Your task to perform on an android device: Clear all items from cart on bestbuy.com. Add "usb-c to usb-a" to the cart on bestbuy.com Image 0: 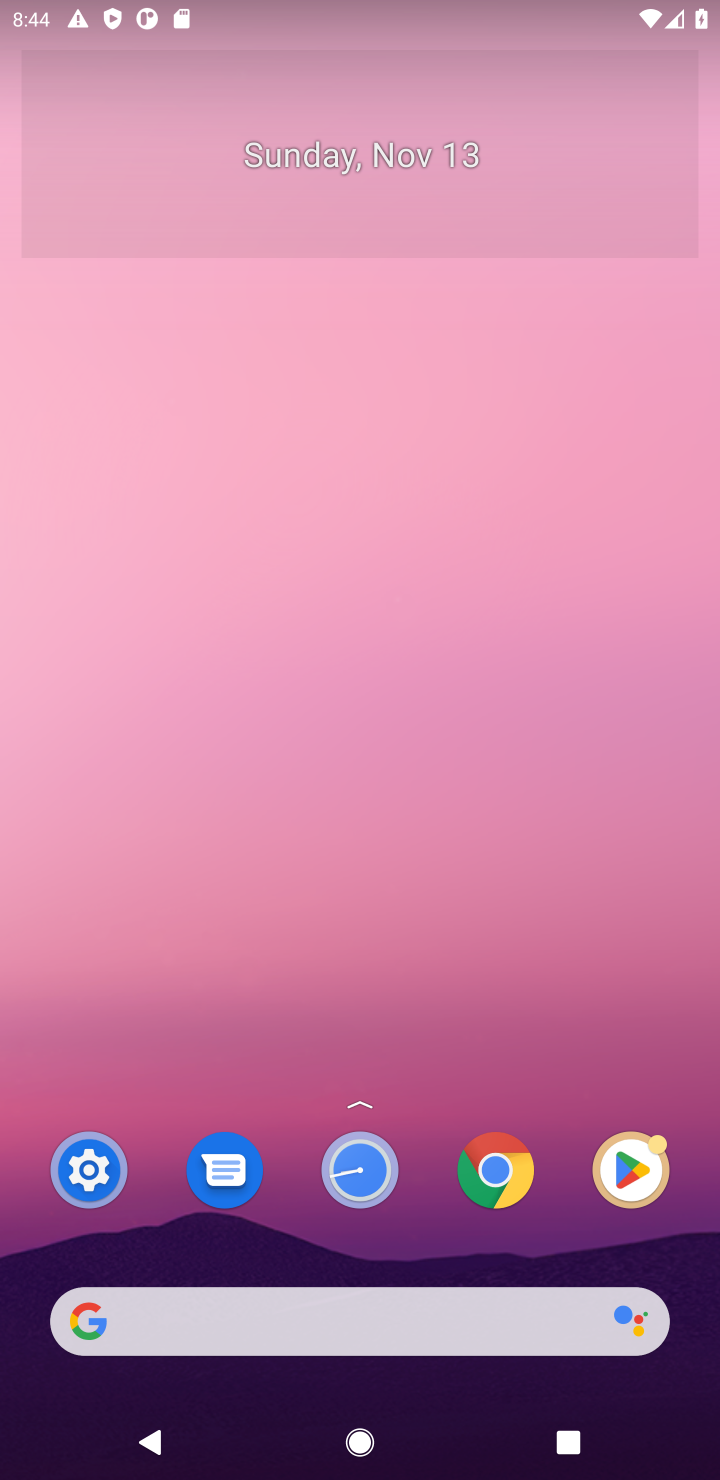
Step 0: click (405, 1302)
Your task to perform on an android device: Clear all items from cart on bestbuy.com. Add "usb-c to usb-a" to the cart on bestbuy.com Image 1: 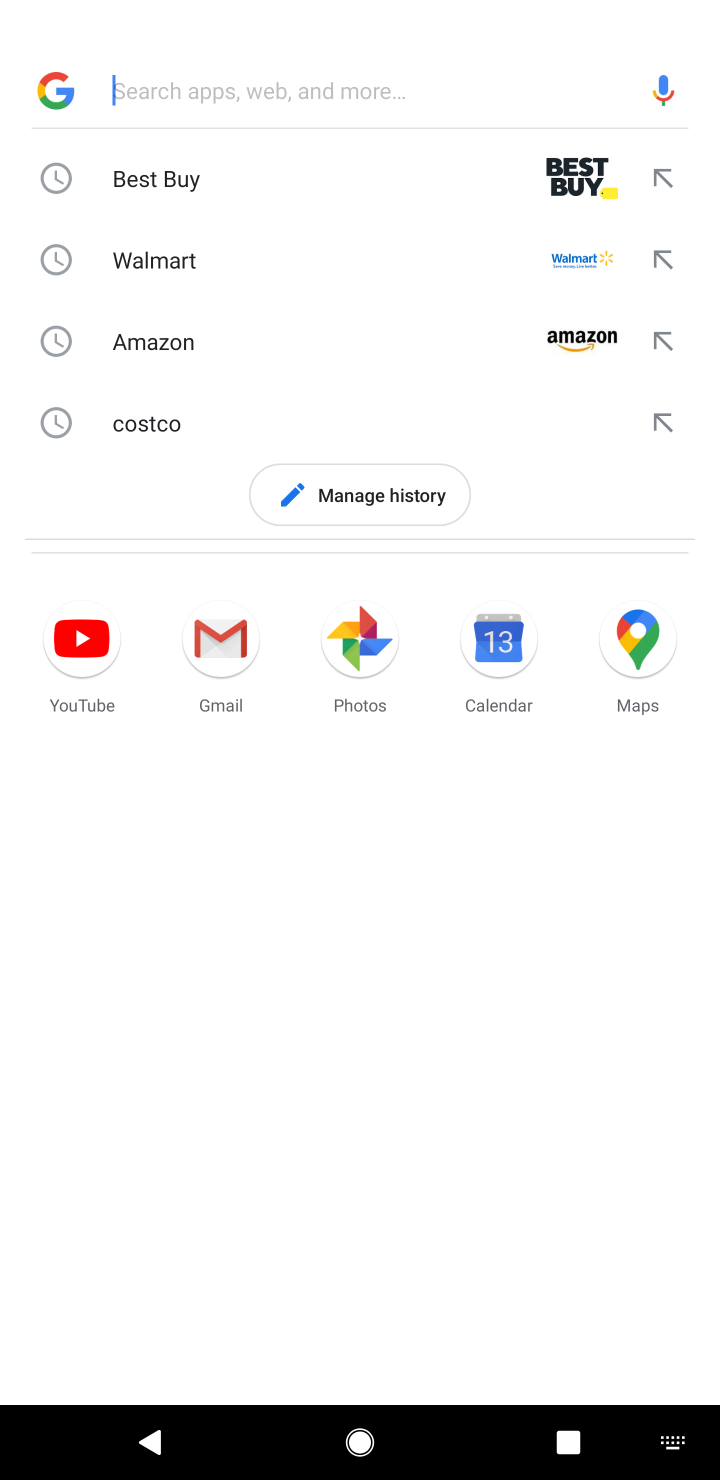
Step 1: type "bestbuy"
Your task to perform on an android device: Clear all items from cart on bestbuy.com. Add "usb-c to usb-a" to the cart on bestbuy.com Image 2: 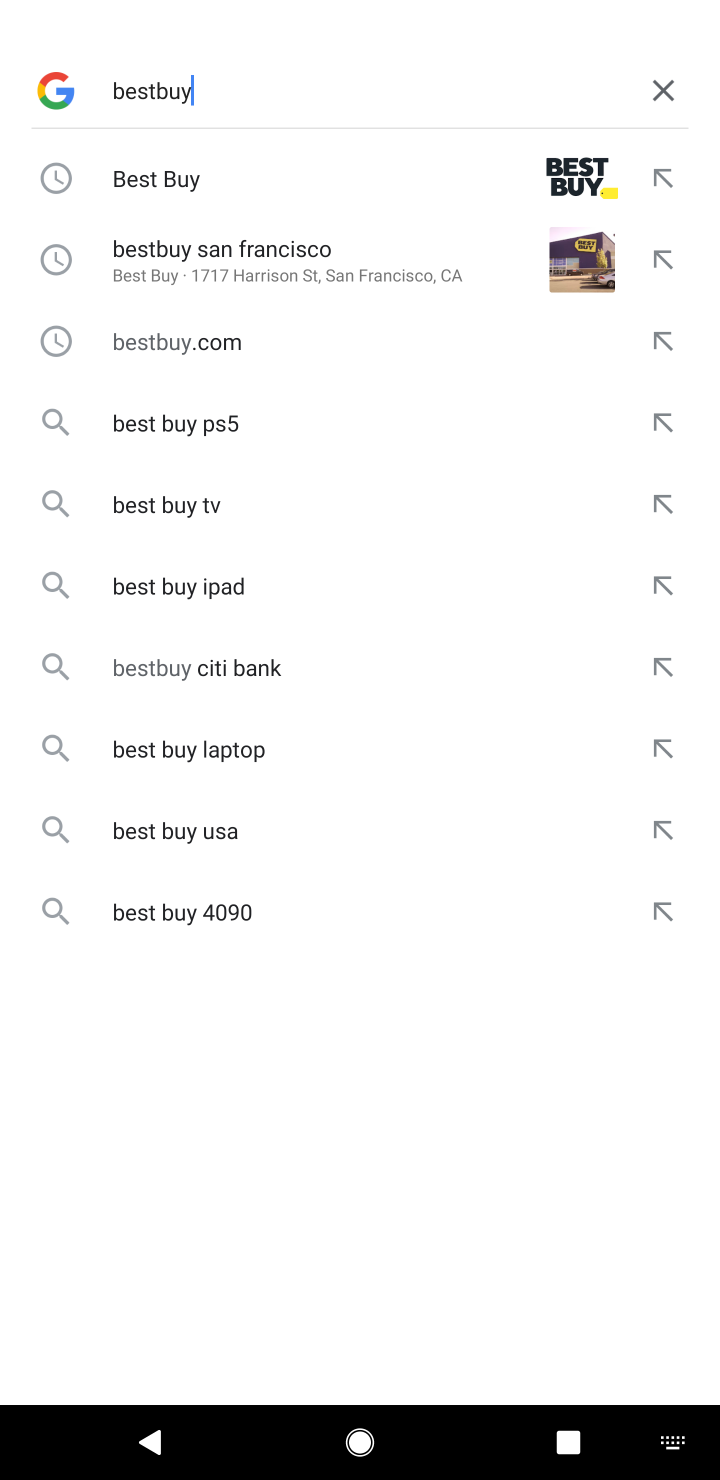
Step 2: click (245, 193)
Your task to perform on an android device: Clear all items from cart on bestbuy.com. Add "usb-c to usb-a" to the cart on bestbuy.com Image 3: 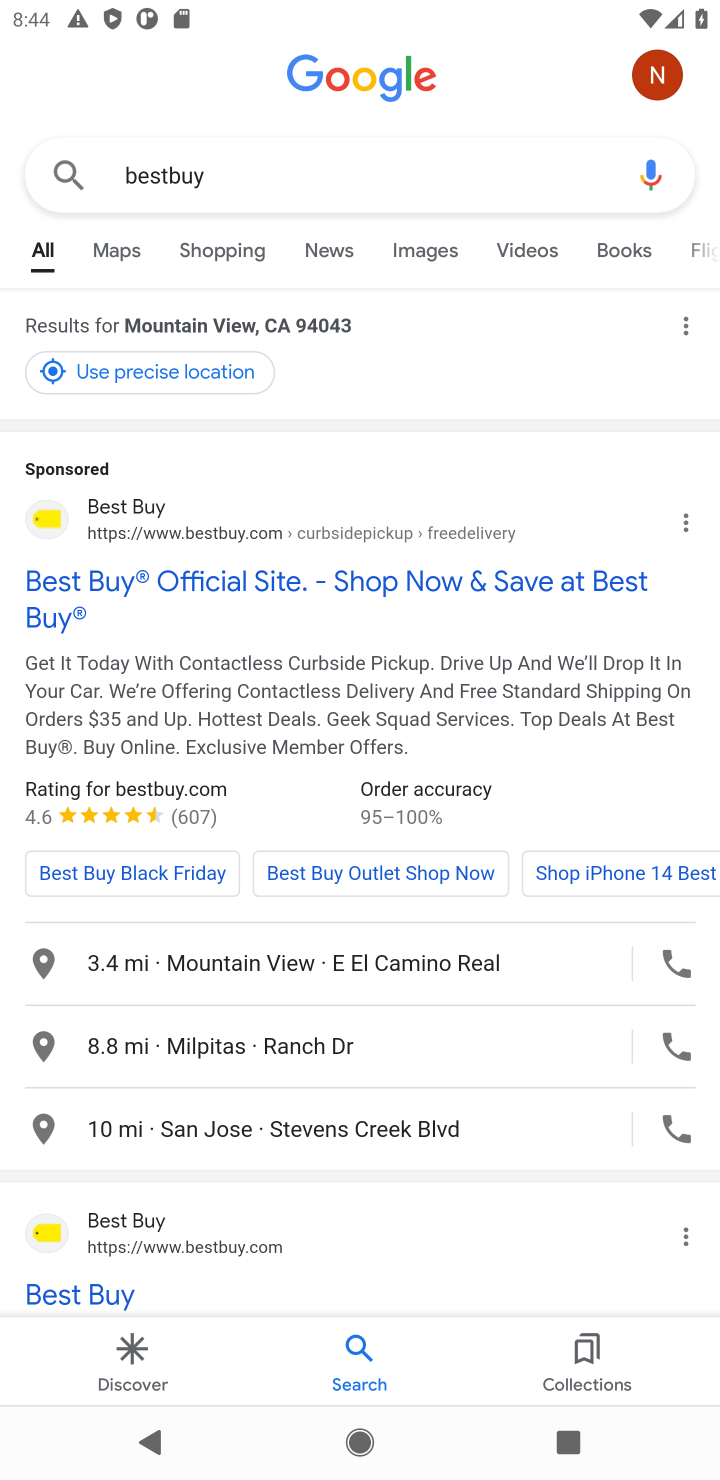
Step 3: click (85, 595)
Your task to perform on an android device: Clear all items from cart on bestbuy.com. Add "usb-c to usb-a" to the cart on bestbuy.com Image 4: 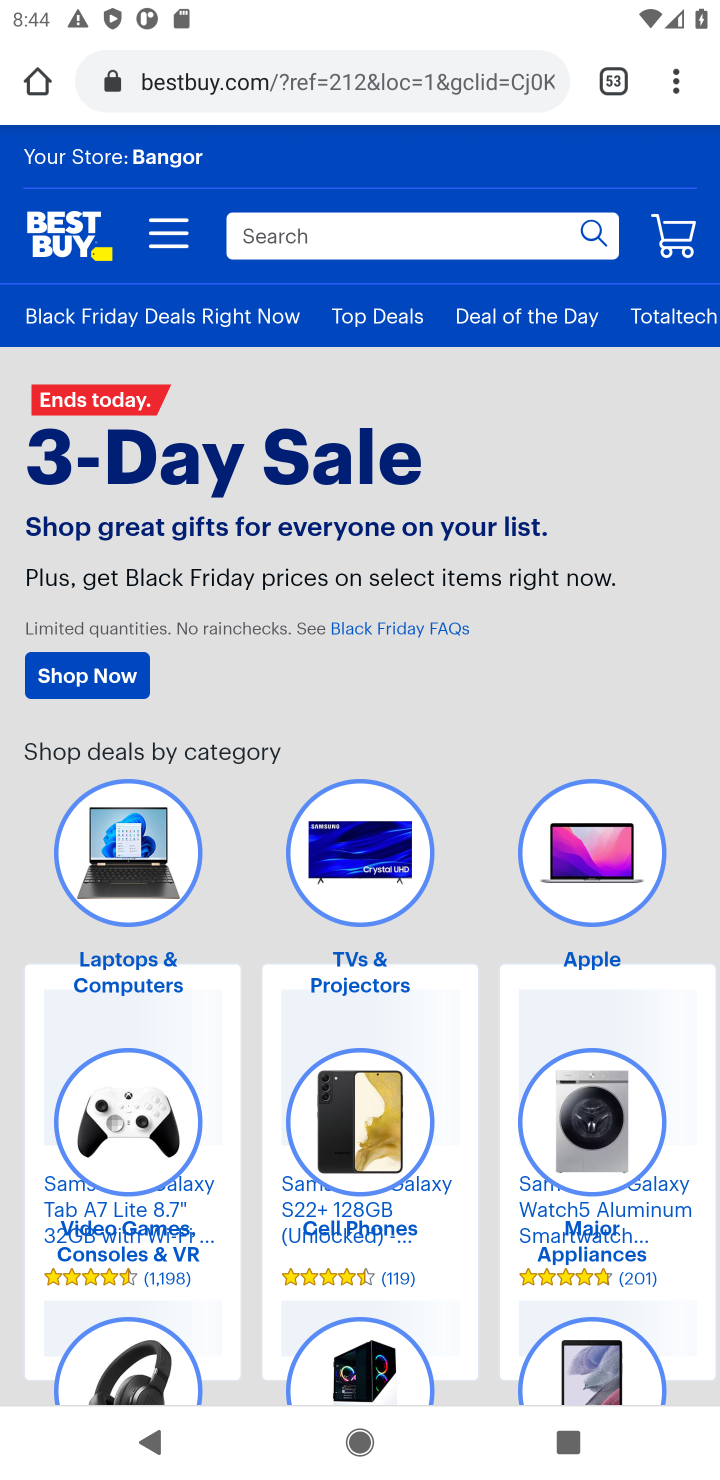
Step 4: task complete